Your task to perform on an android device: set an alarm Image 0: 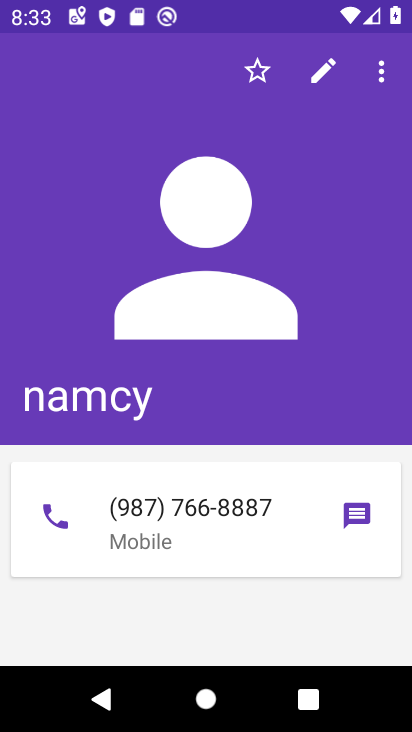
Step 0: press home button
Your task to perform on an android device: set an alarm Image 1: 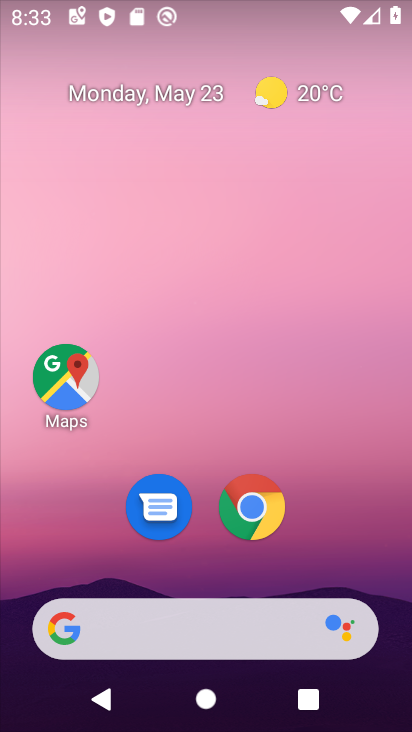
Step 1: drag from (349, 561) to (337, 6)
Your task to perform on an android device: set an alarm Image 2: 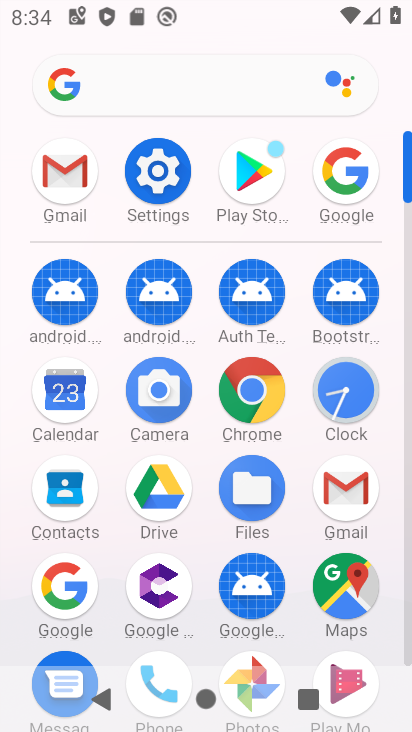
Step 2: click (348, 392)
Your task to perform on an android device: set an alarm Image 3: 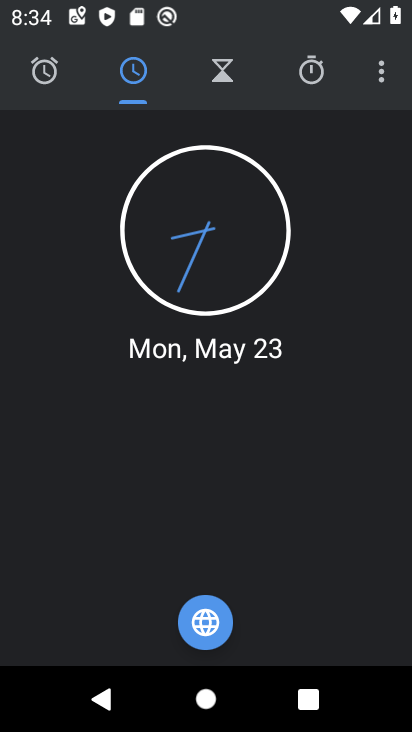
Step 3: click (44, 66)
Your task to perform on an android device: set an alarm Image 4: 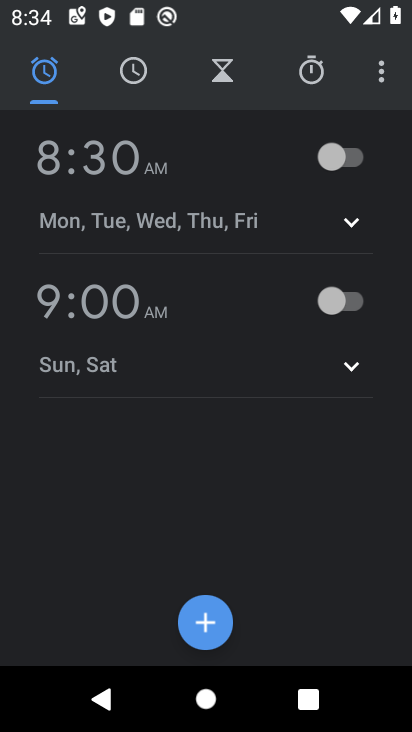
Step 4: click (213, 622)
Your task to perform on an android device: set an alarm Image 5: 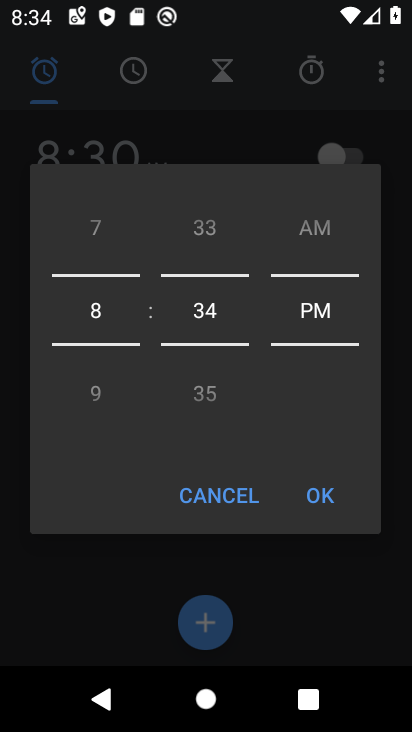
Step 5: drag from (99, 259) to (100, 474)
Your task to perform on an android device: set an alarm Image 6: 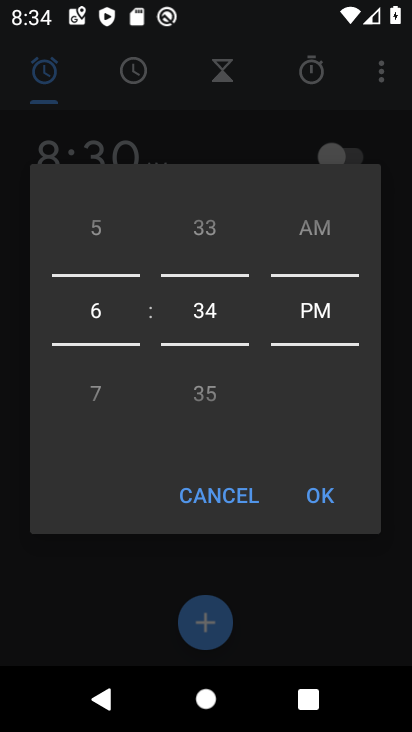
Step 6: drag from (209, 303) to (227, 546)
Your task to perform on an android device: set an alarm Image 7: 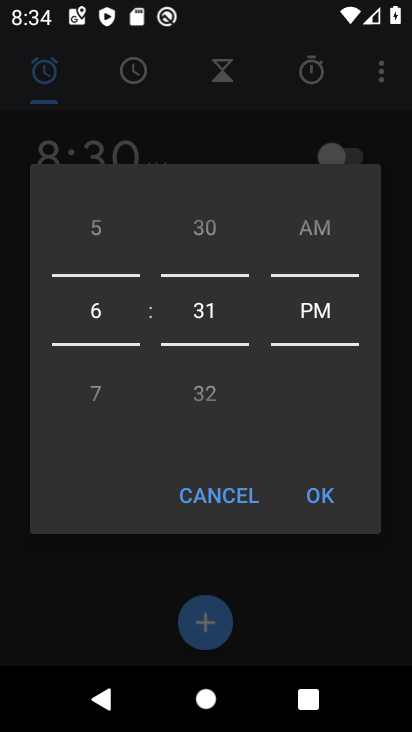
Step 7: drag from (195, 314) to (208, 402)
Your task to perform on an android device: set an alarm Image 8: 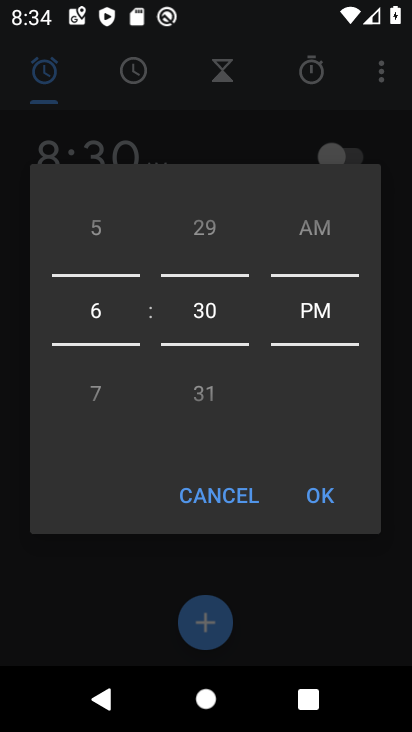
Step 8: drag from (325, 311) to (351, 396)
Your task to perform on an android device: set an alarm Image 9: 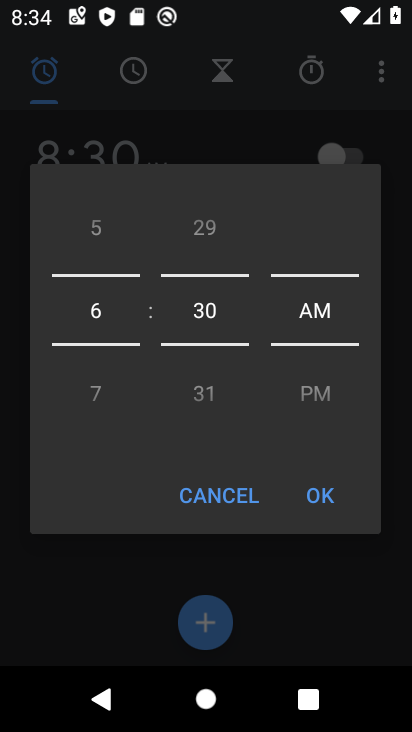
Step 9: click (327, 508)
Your task to perform on an android device: set an alarm Image 10: 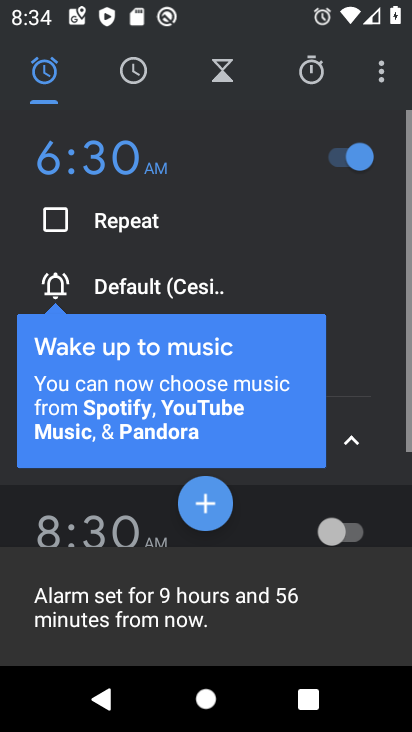
Step 10: task complete